Your task to perform on an android device: Open the map Image 0: 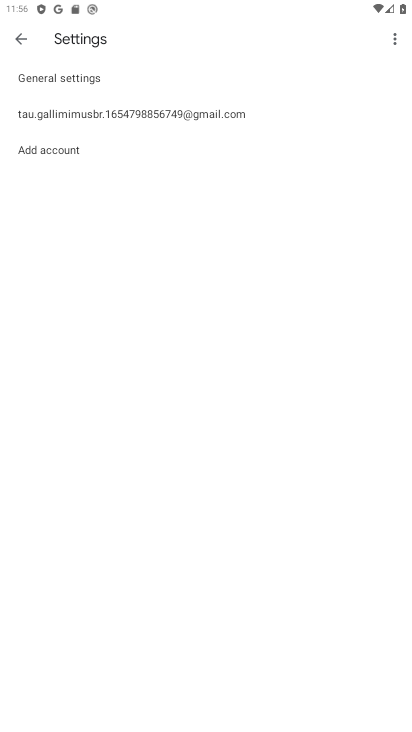
Step 0: press home button
Your task to perform on an android device: Open the map Image 1: 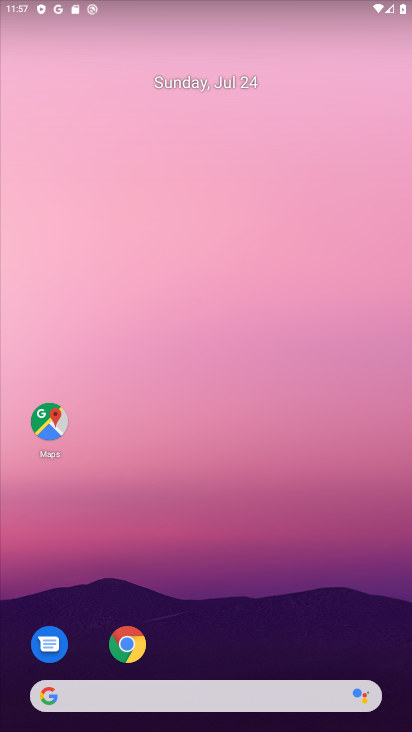
Step 1: click (39, 440)
Your task to perform on an android device: Open the map Image 2: 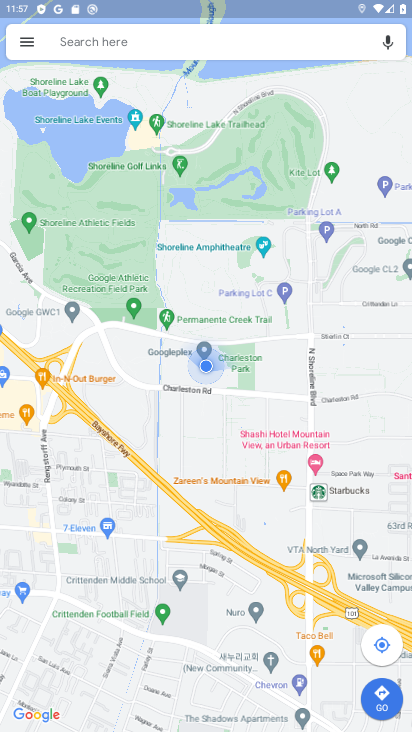
Step 2: task complete